Your task to perform on an android device: turn off data saver in the chrome app Image 0: 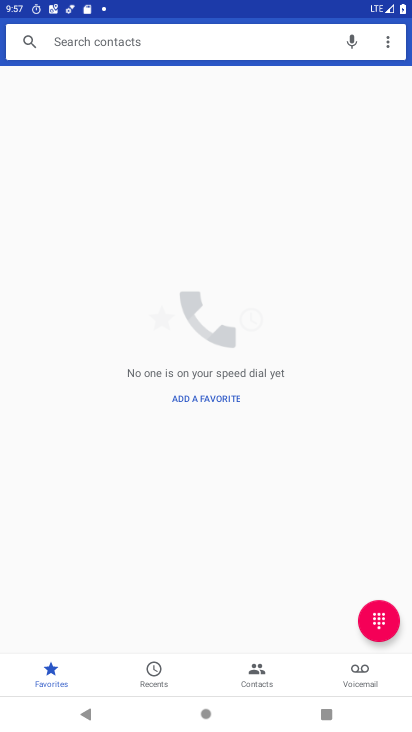
Step 0: press home button
Your task to perform on an android device: turn off data saver in the chrome app Image 1: 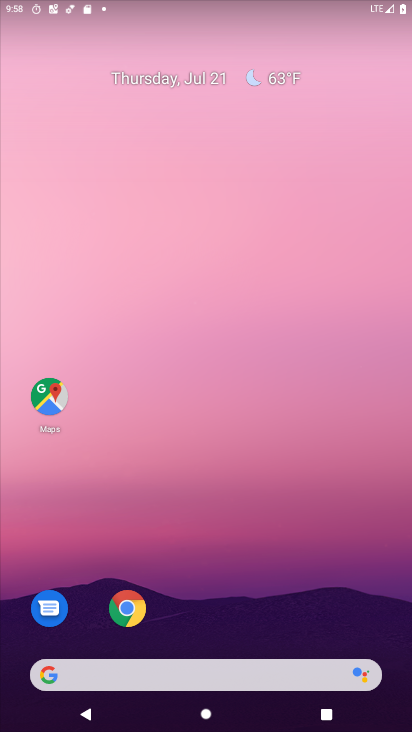
Step 1: drag from (242, 583) to (340, 39)
Your task to perform on an android device: turn off data saver in the chrome app Image 2: 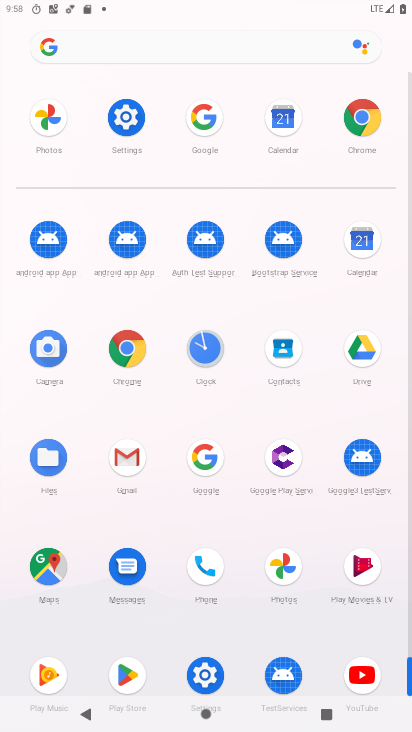
Step 2: click (129, 368)
Your task to perform on an android device: turn off data saver in the chrome app Image 3: 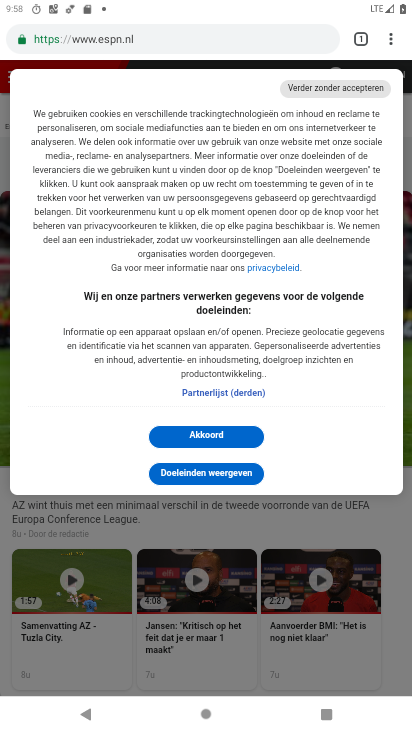
Step 3: click (395, 40)
Your task to perform on an android device: turn off data saver in the chrome app Image 4: 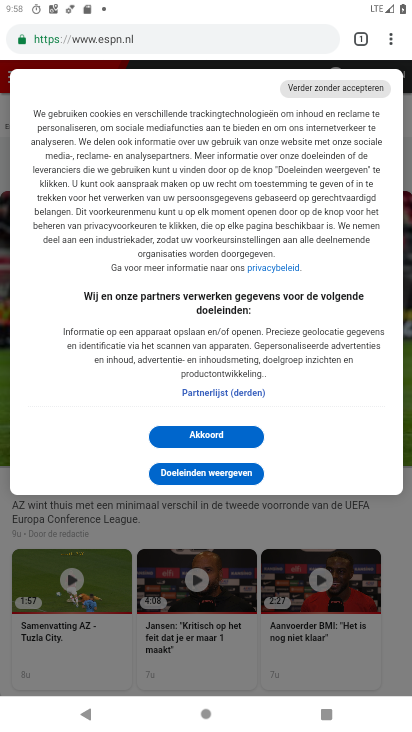
Step 4: click (393, 48)
Your task to perform on an android device: turn off data saver in the chrome app Image 5: 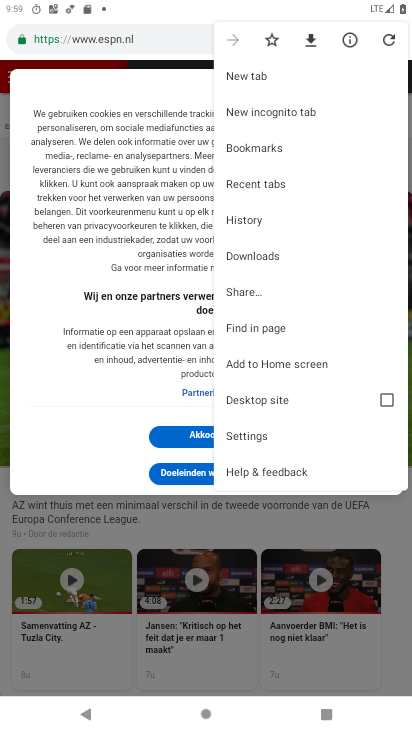
Step 5: click (248, 436)
Your task to perform on an android device: turn off data saver in the chrome app Image 6: 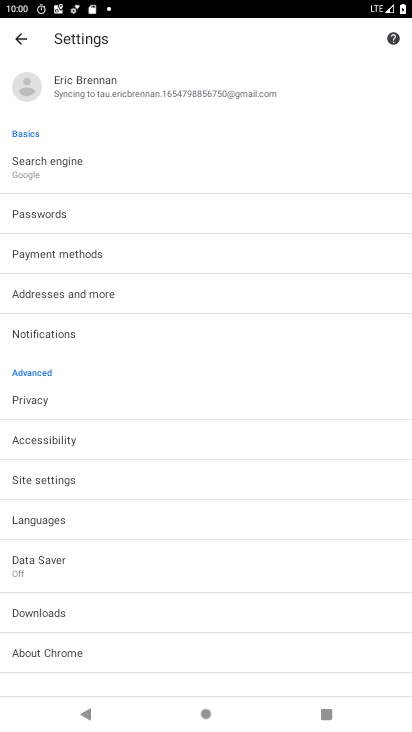
Step 6: drag from (81, 577) to (107, 451)
Your task to perform on an android device: turn off data saver in the chrome app Image 7: 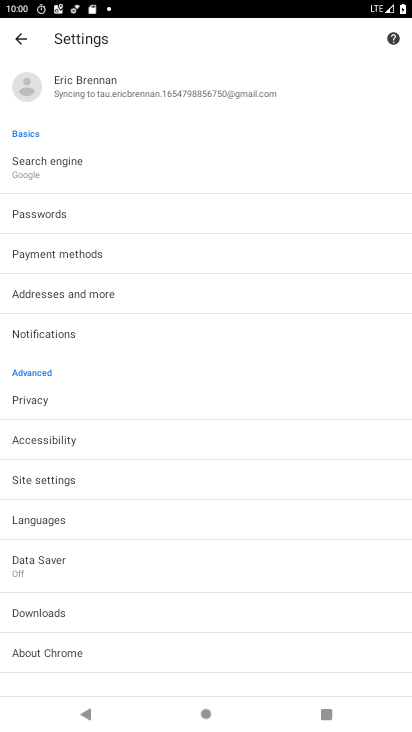
Step 7: click (80, 573)
Your task to perform on an android device: turn off data saver in the chrome app Image 8: 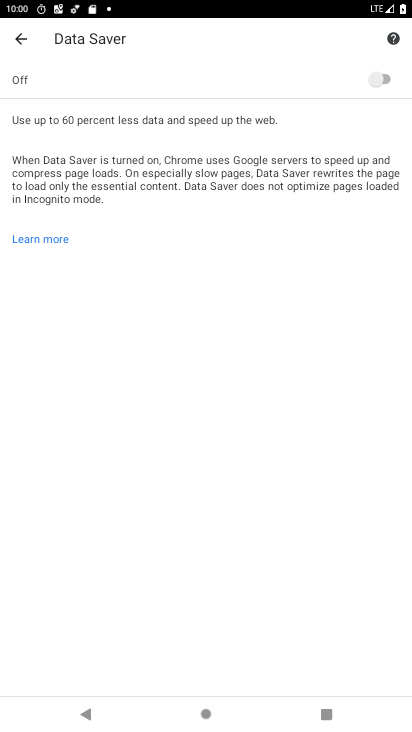
Step 8: task complete